Your task to perform on an android device: change the clock display to digital Image 0: 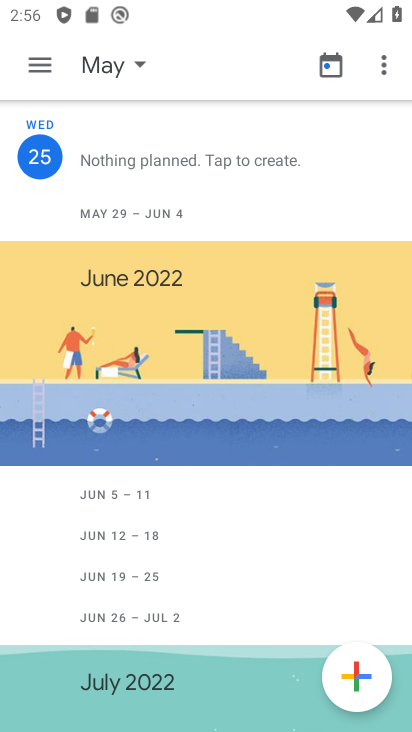
Step 0: press home button
Your task to perform on an android device: change the clock display to digital Image 1: 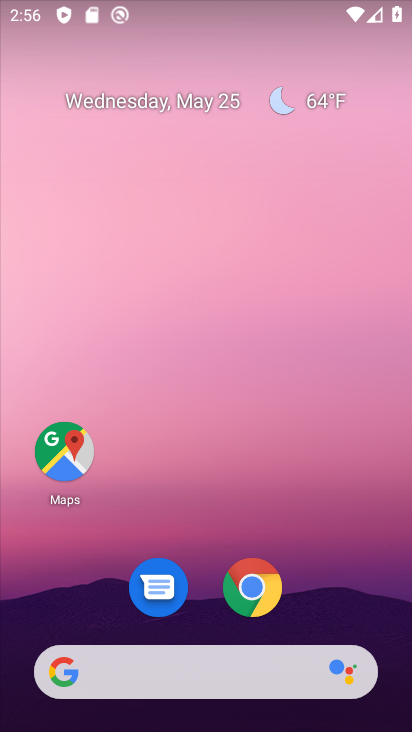
Step 1: drag from (346, 483) to (285, 84)
Your task to perform on an android device: change the clock display to digital Image 2: 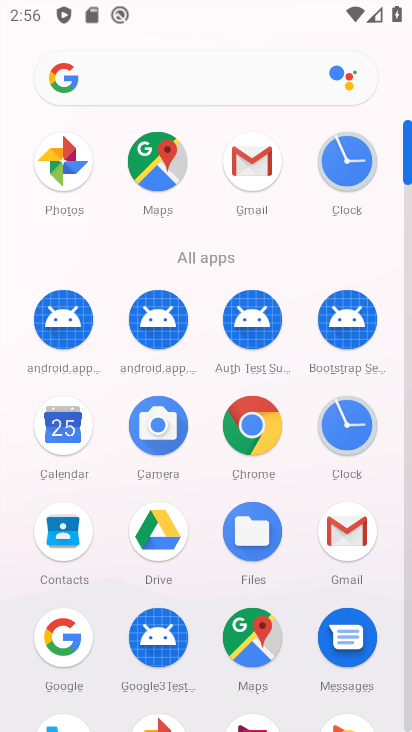
Step 2: click (345, 163)
Your task to perform on an android device: change the clock display to digital Image 3: 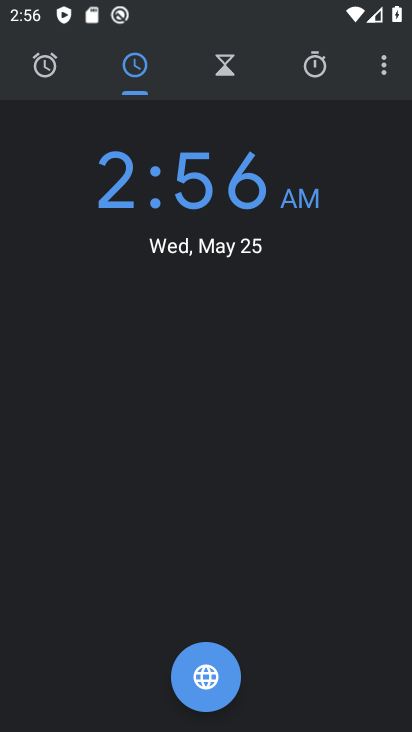
Step 3: click (386, 69)
Your task to perform on an android device: change the clock display to digital Image 4: 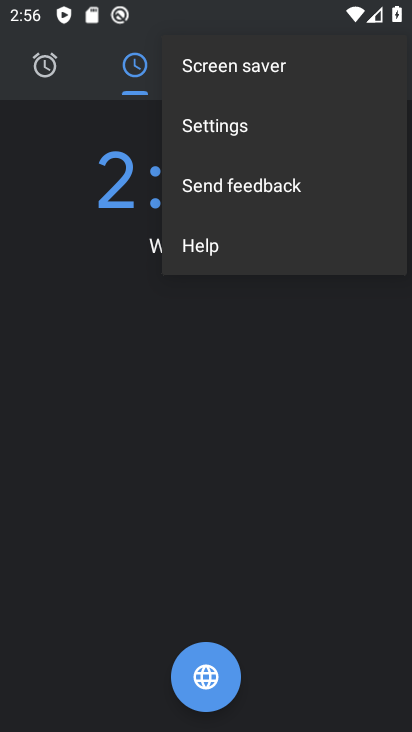
Step 4: click (305, 130)
Your task to perform on an android device: change the clock display to digital Image 5: 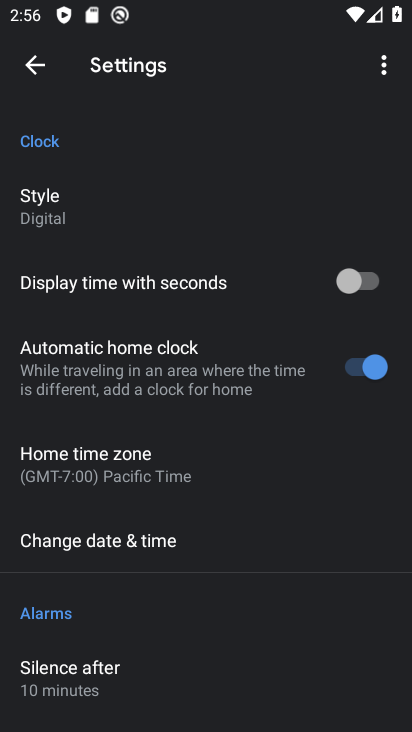
Step 5: click (216, 225)
Your task to perform on an android device: change the clock display to digital Image 6: 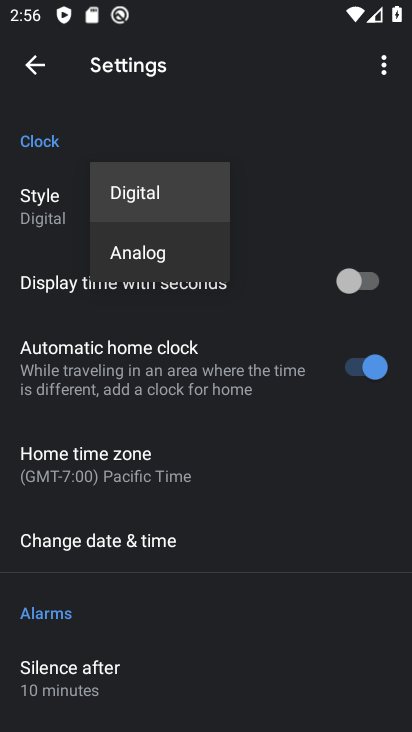
Step 6: task complete